Your task to perform on an android device: Open internet settings Image 0: 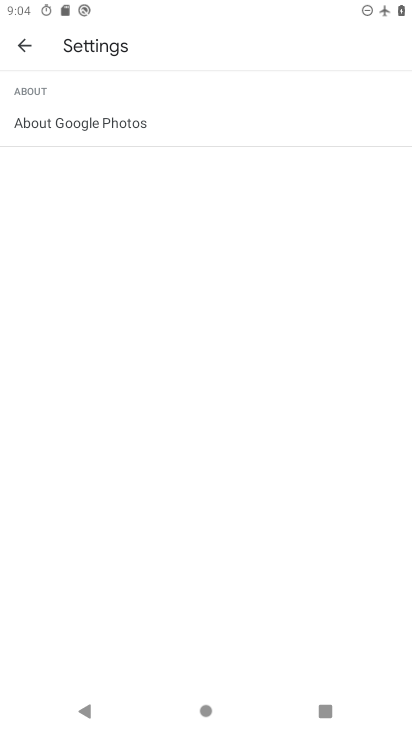
Step 0: press home button
Your task to perform on an android device: Open internet settings Image 1: 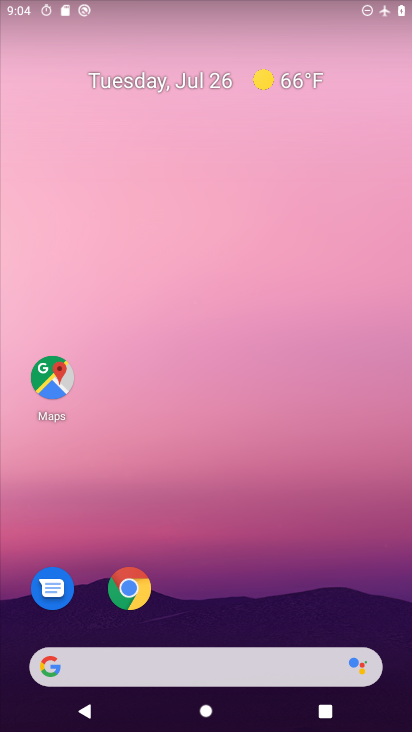
Step 1: drag from (248, 720) to (236, 140)
Your task to perform on an android device: Open internet settings Image 2: 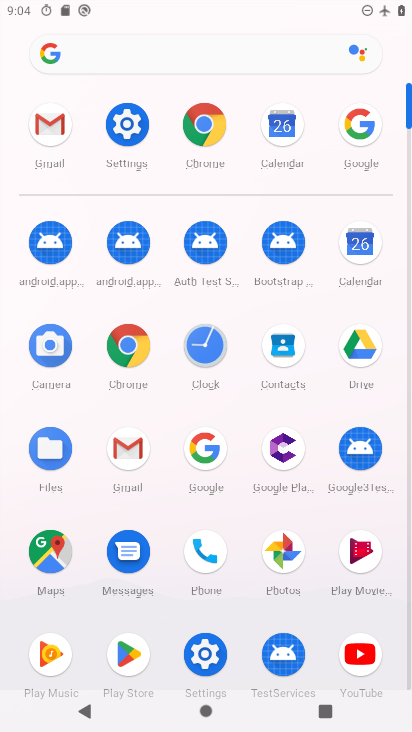
Step 2: click (131, 120)
Your task to perform on an android device: Open internet settings Image 3: 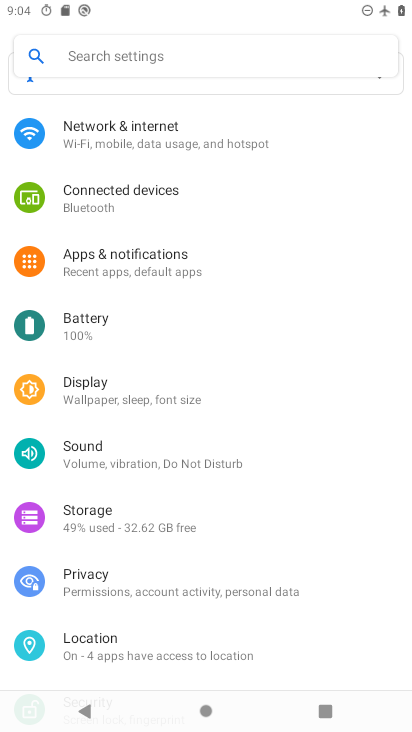
Step 3: click (130, 130)
Your task to perform on an android device: Open internet settings Image 4: 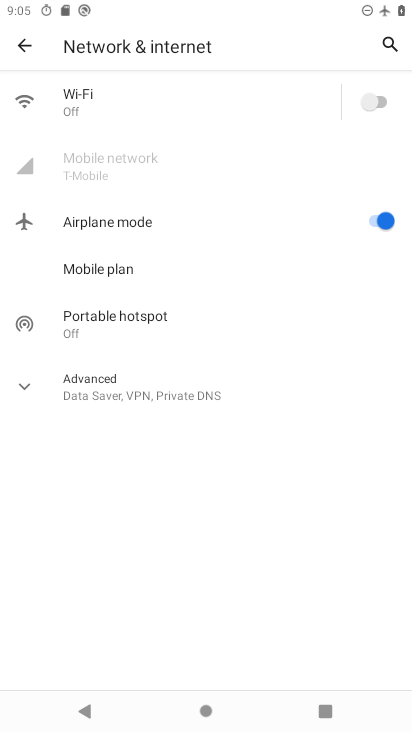
Step 4: task complete